Your task to perform on an android device: Open privacy settings Image 0: 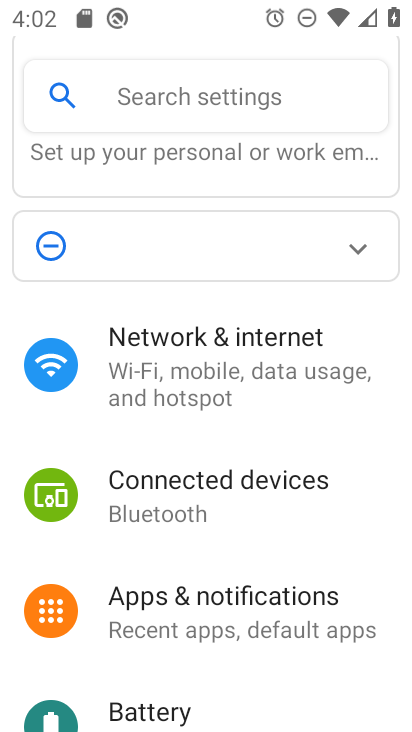
Step 0: drag from (281, 599) to (287, 254)
Your task to perform on an android device: Open privacy settings Image 1: 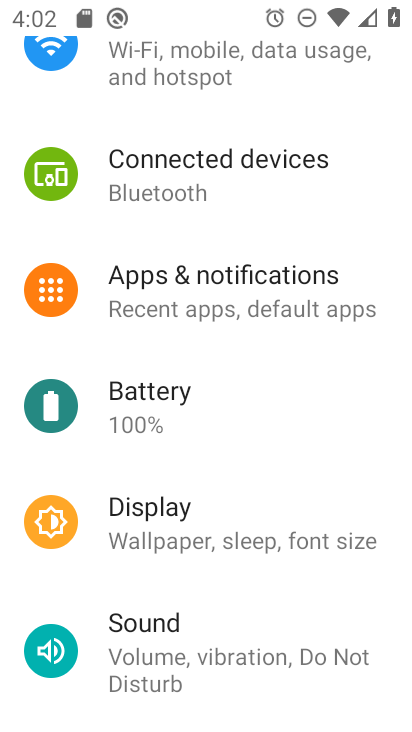
Step 1: drag from (312, 584) to (323, 249)
Your task to perform on an android device: Open privacy settings Image 2: 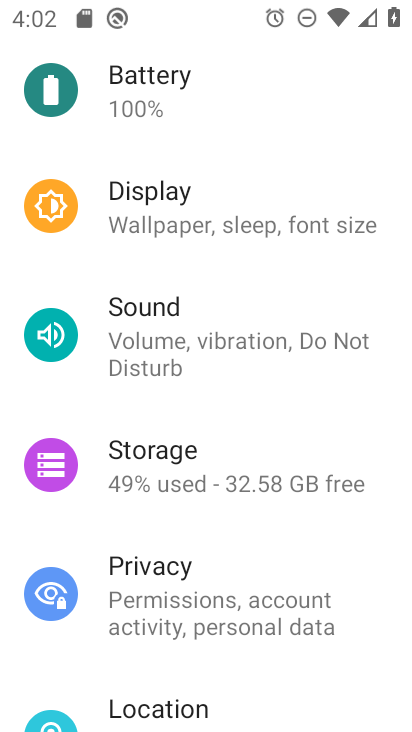
Step 2: click (262, 554)
Your task to perform on an android device: Open privacy settings Image 3: 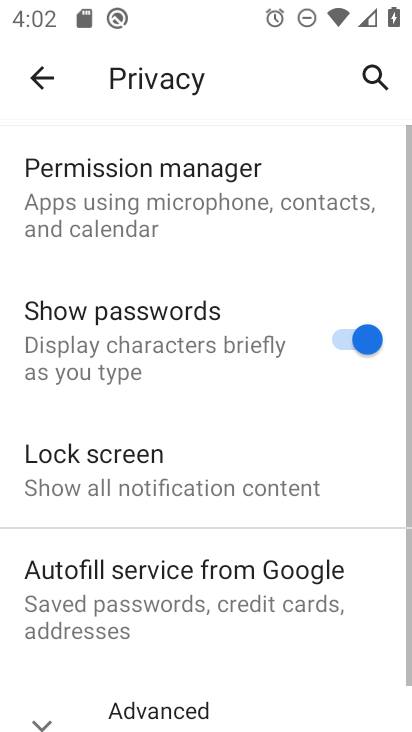
Step 3: task complete